Your task to perform on an android device: Install the CNN app Image 0: 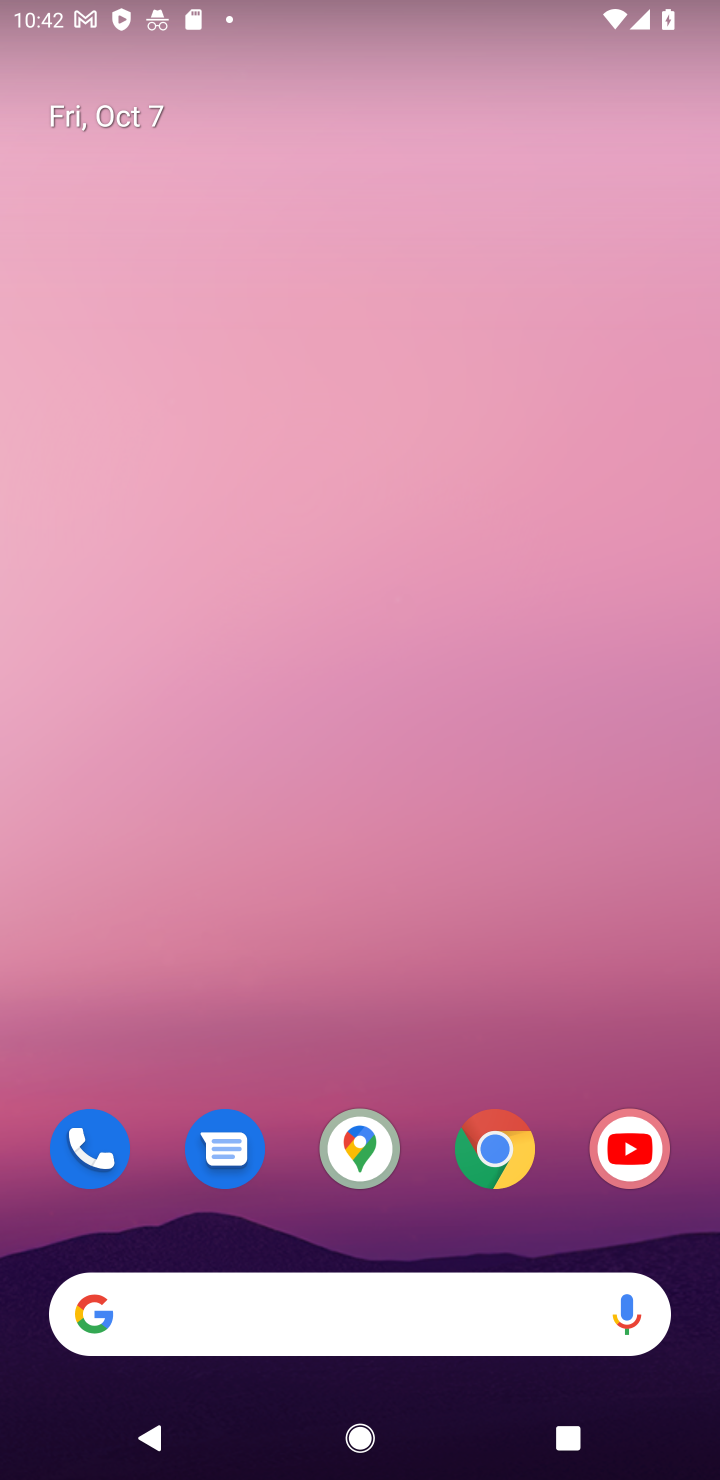
Step 0: drag from (419, 1235) to (361, 538)
Your task to perform on an android device: Install the CNN app Image 1: 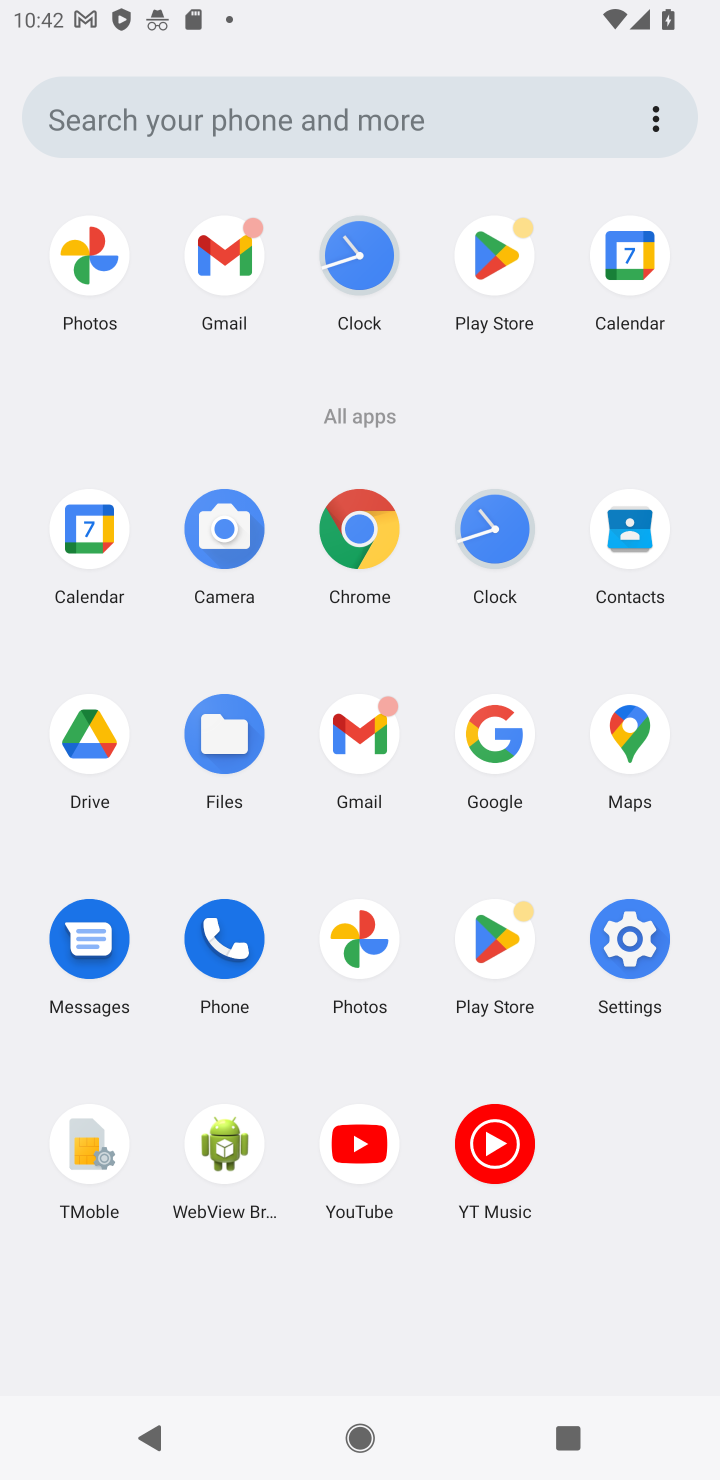
Step 1: click (478, 299)
Your task to perform on an android device: Install the CNN app Image 2: 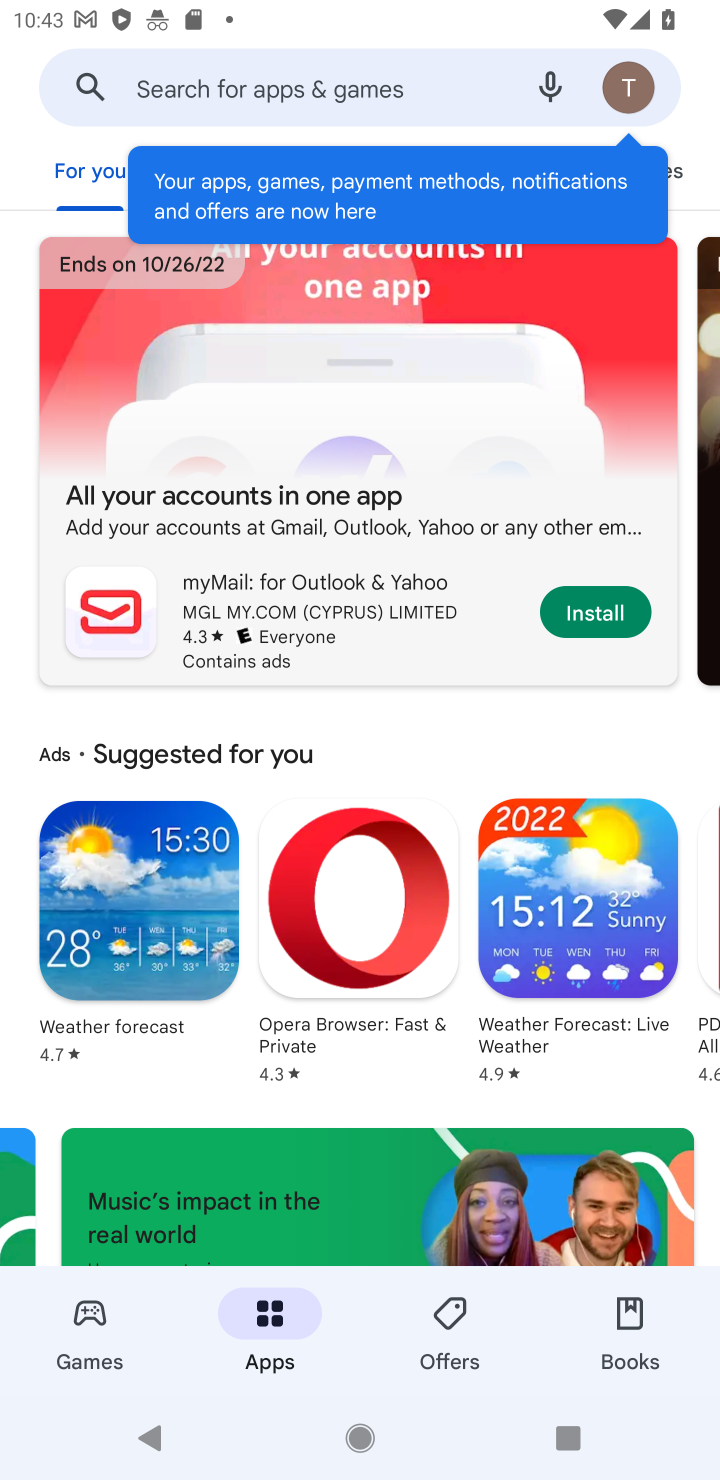
Step 2: click (416, 108)
Your task to perform on an android device: Install the CNN app Image 3: 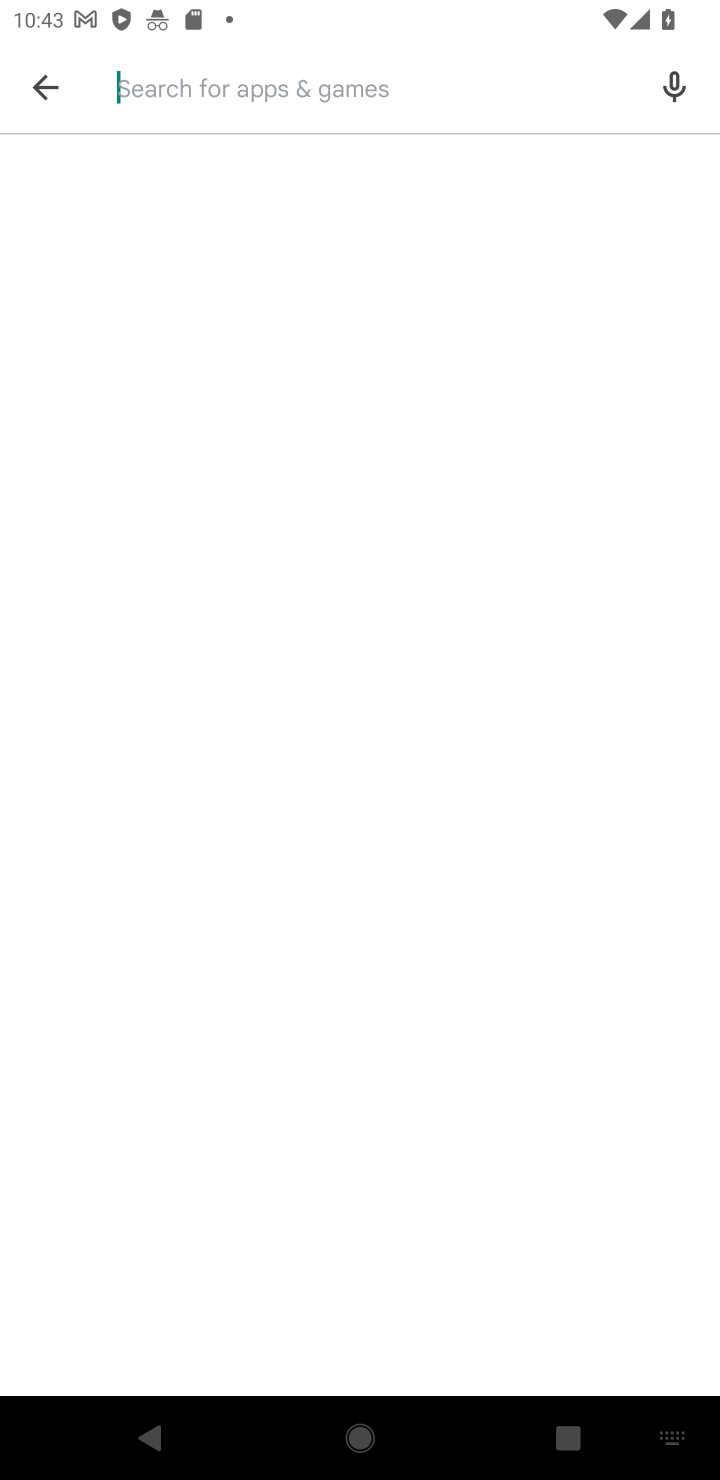
Step 3: type "cnn"
Your task to perform on an android device: Install the CNN app Image 4: 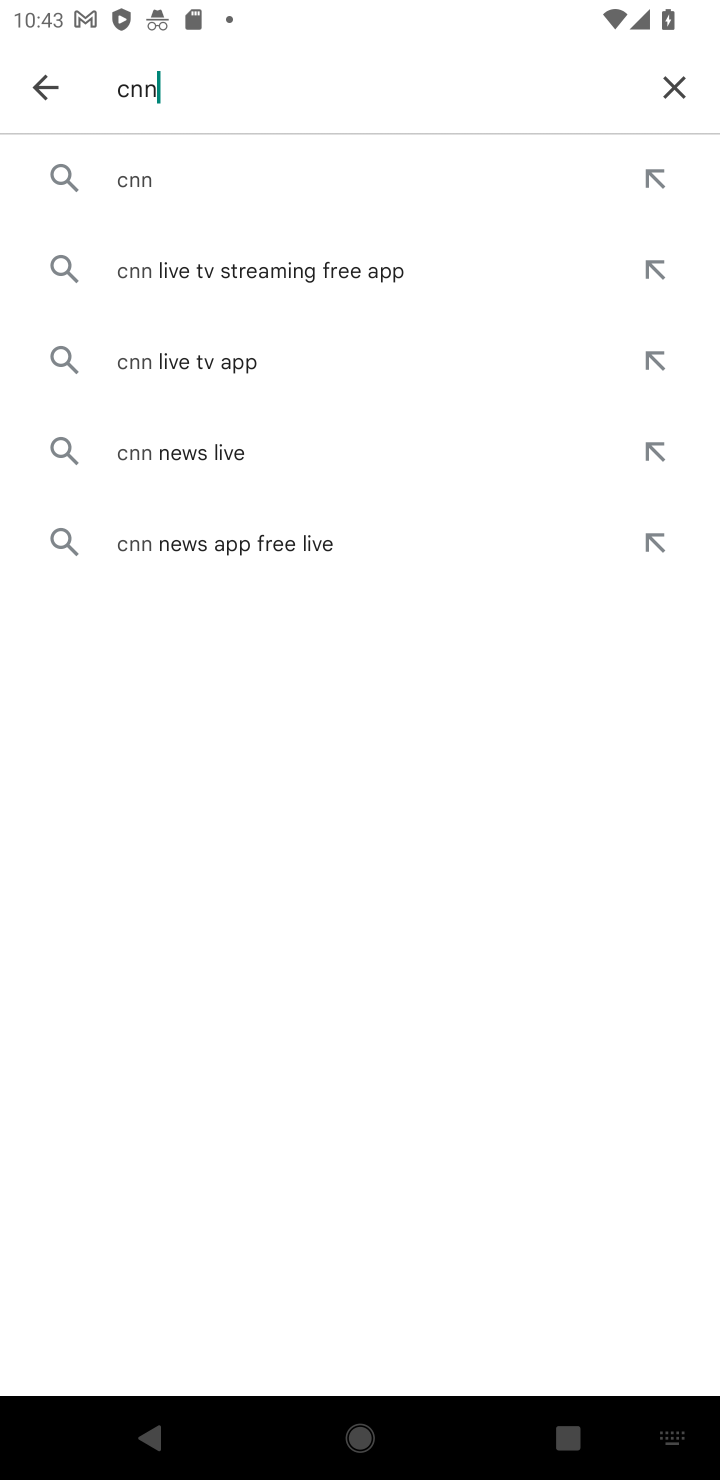
Step 4: click (204, 185)
Your task to perform on an android device: Install the CNN app Image 5: 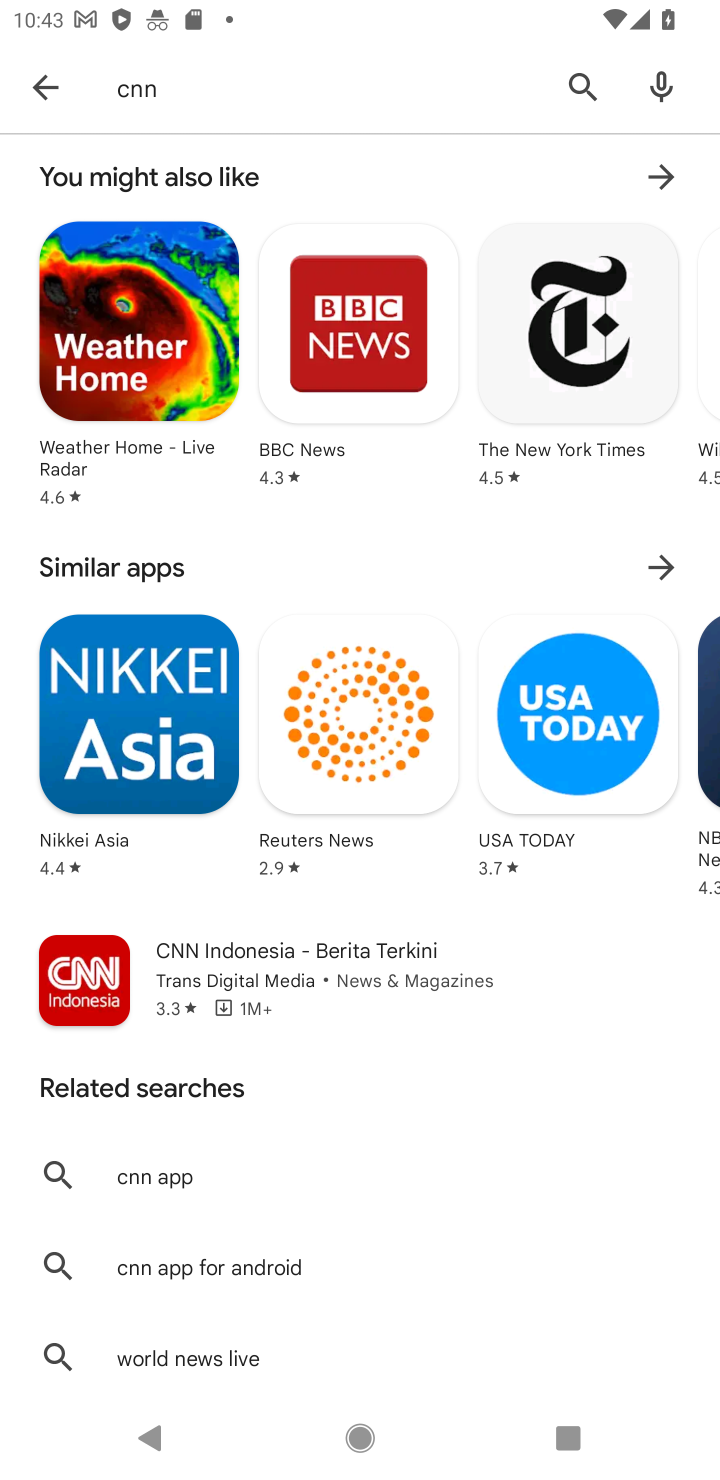
Step 5: click (183, 960)
Your task to perform on an android device: Install the CNN app Image 6: 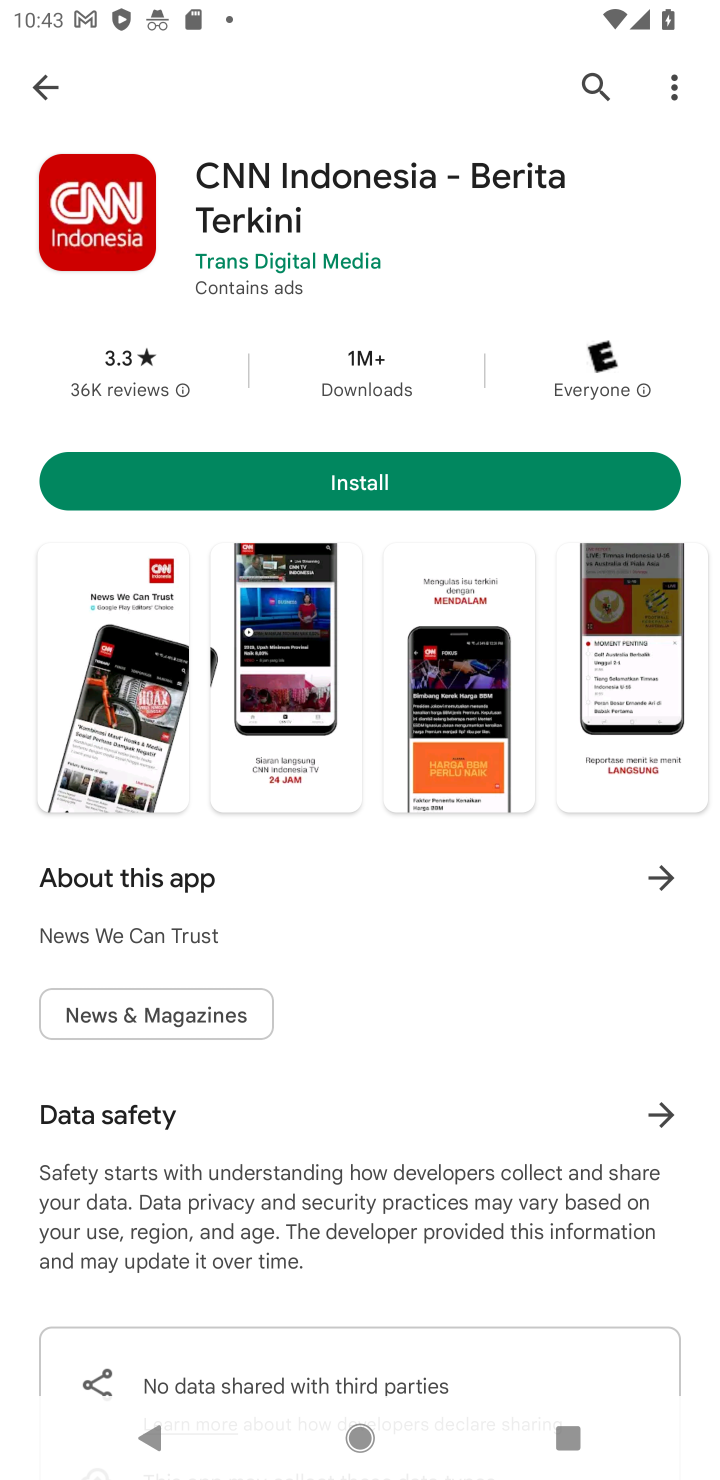
Step 6: click (428, 502)
Your task to perform on an android device: Install the CNN app Image 7: 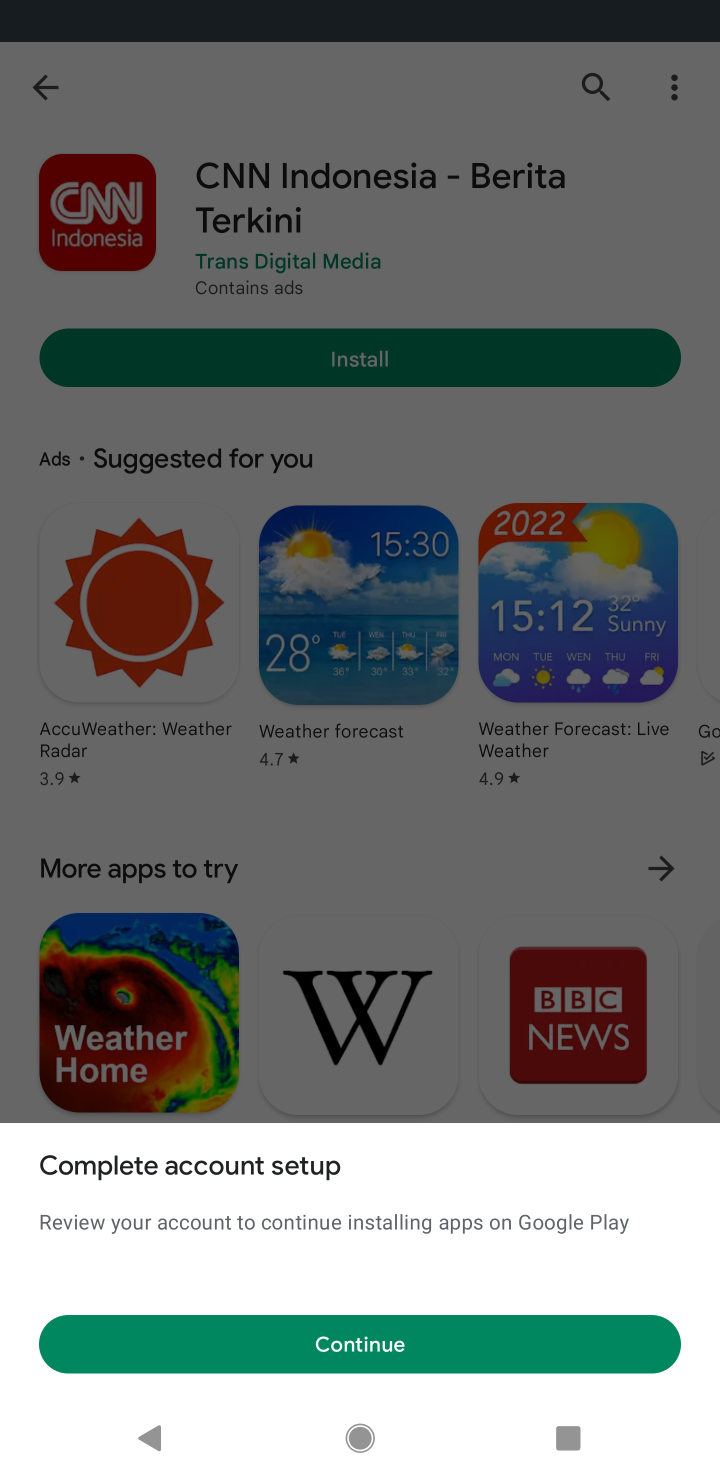
Step 7: click (502, 1368)
Your task to perform on an android device: Install the CNN app Image 8: 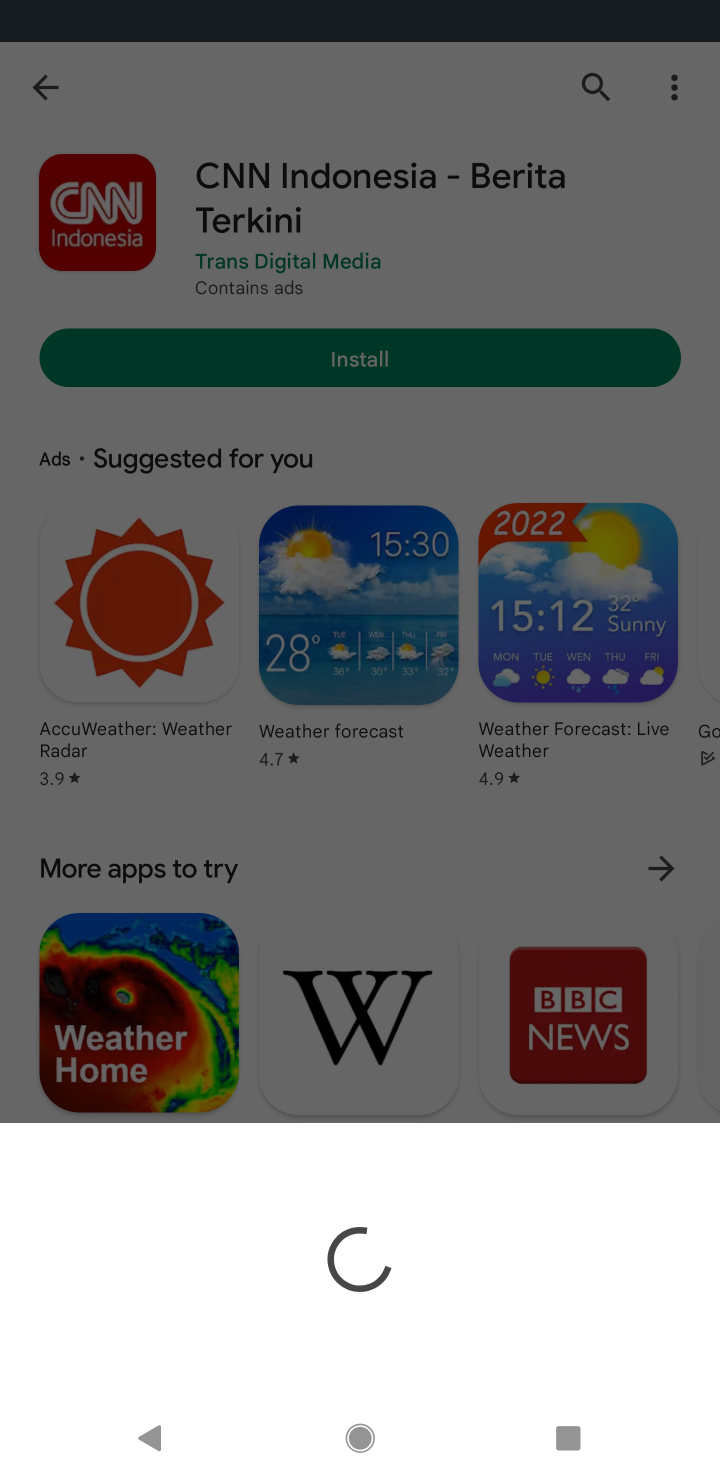
Step 8: click (502, 1368)
Your task to perform on an android device: Install the CNN app Image 9: 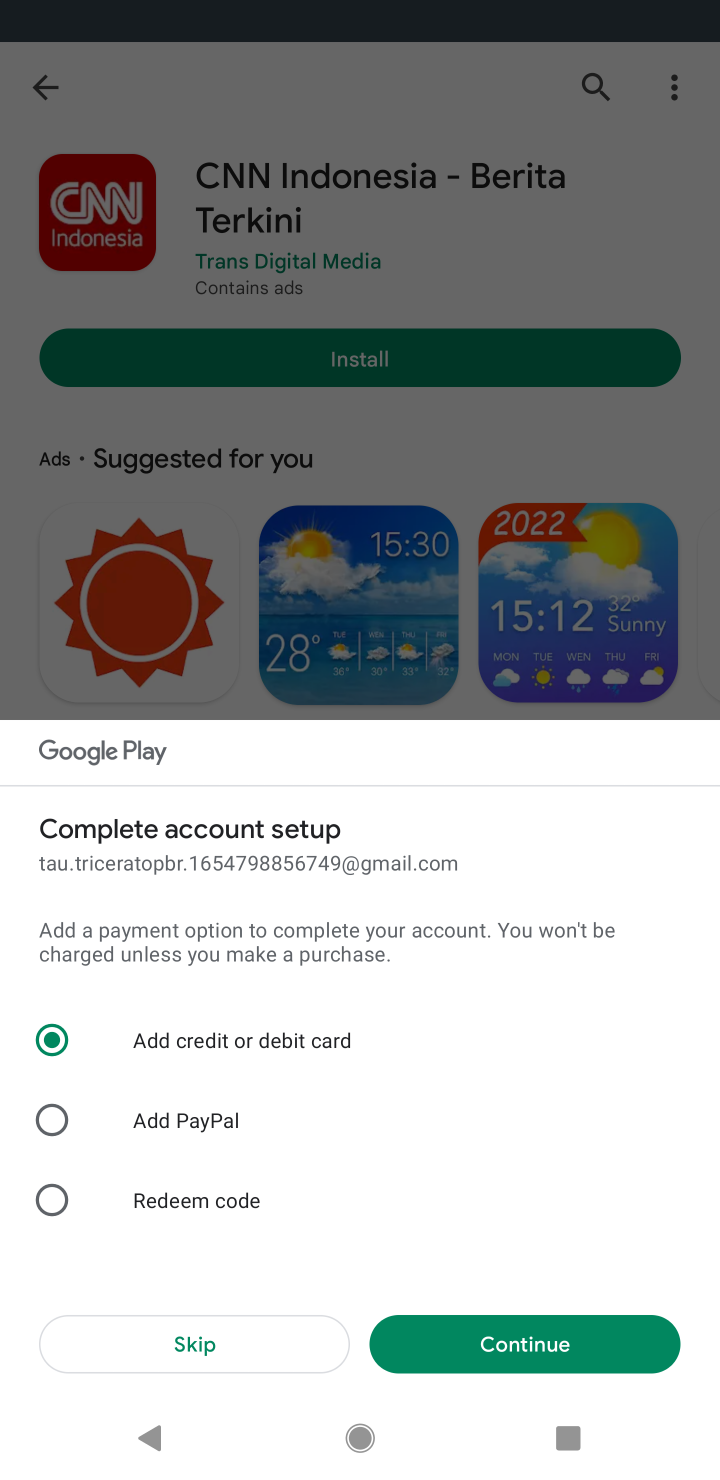
Step 9: click (228, 1343)
Your task to perform on an android device: Install the CNN app Image 10: 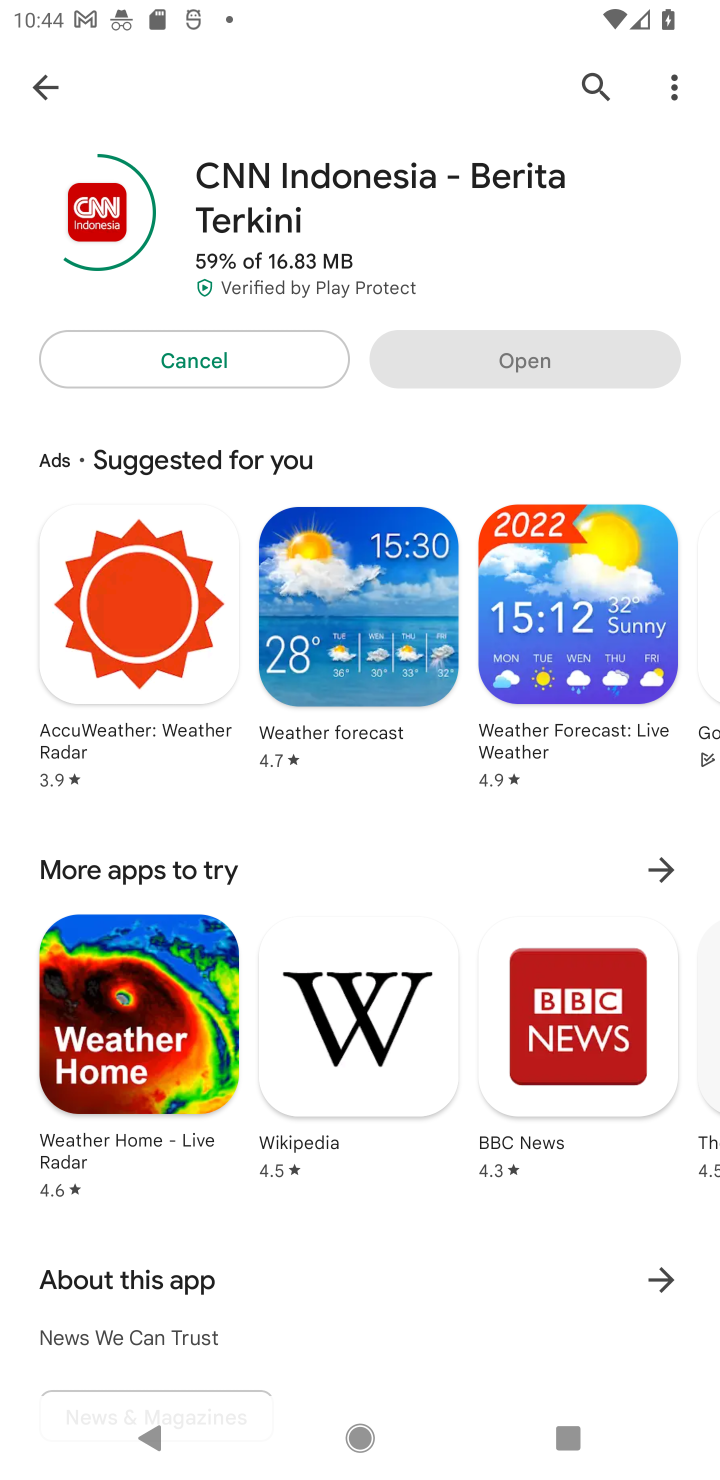
Step 10: task complete